Your task to perform on an android device: Open settings Image 0: 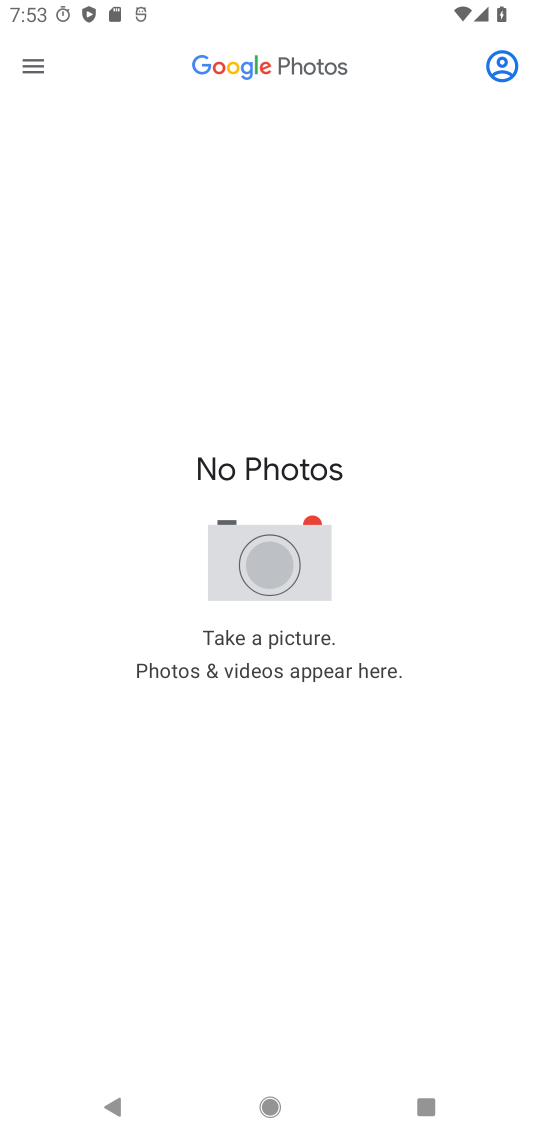
Step 0: press home button
Your task to perform on an android device: Open settings Image 1: 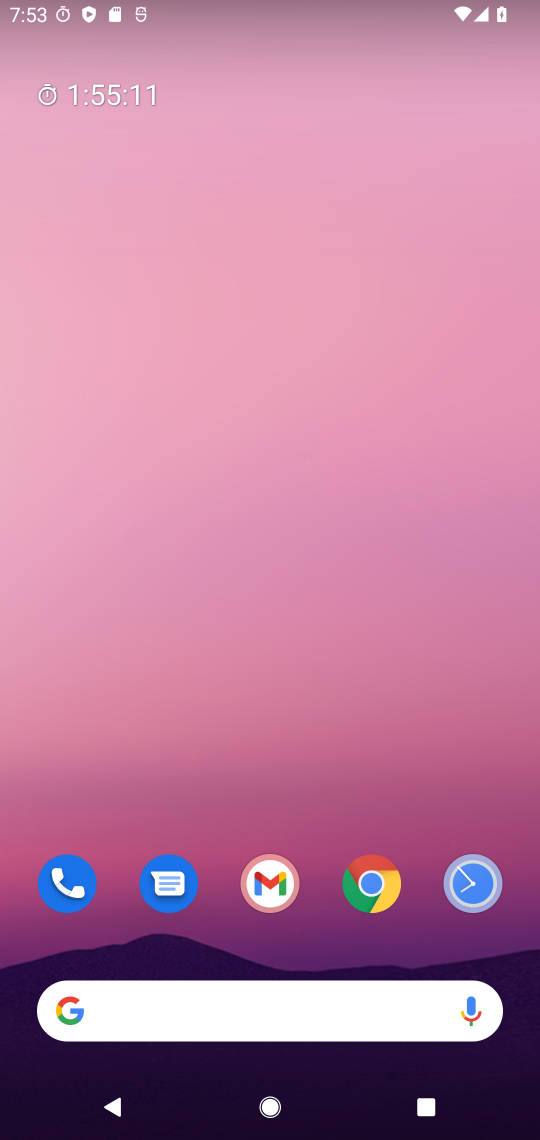
Step 1: drag from (279, 804) to (263, 254)
Your task to perform on an android device: Open settings Image 2: 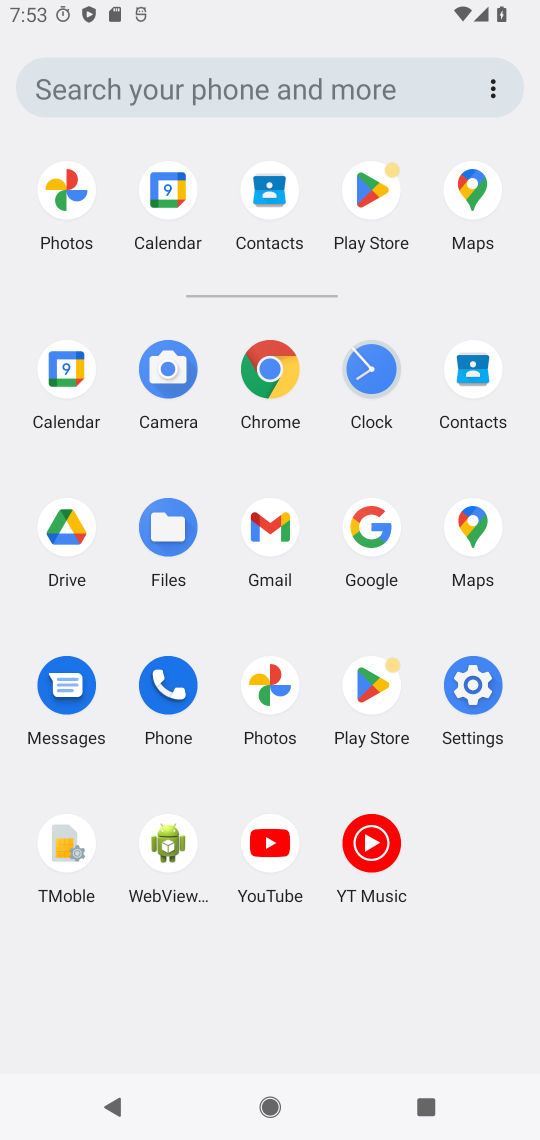
Step 2: click (490, 701)
Your task to perform on an android device: Open settings Image 3: 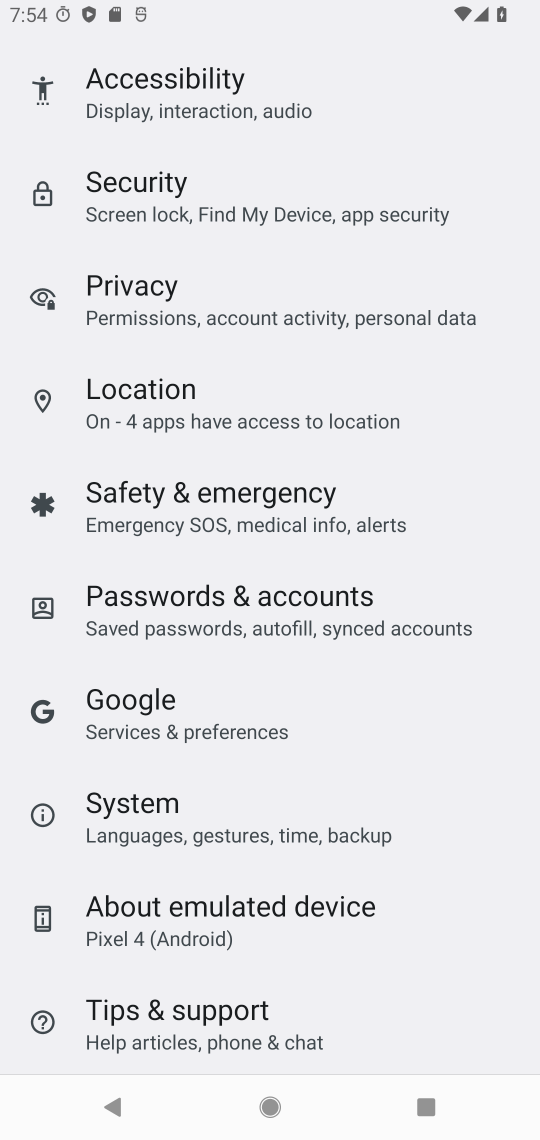
Step 3: task complete